Your task to perform on an android device: Open Google Chrome Image 0: 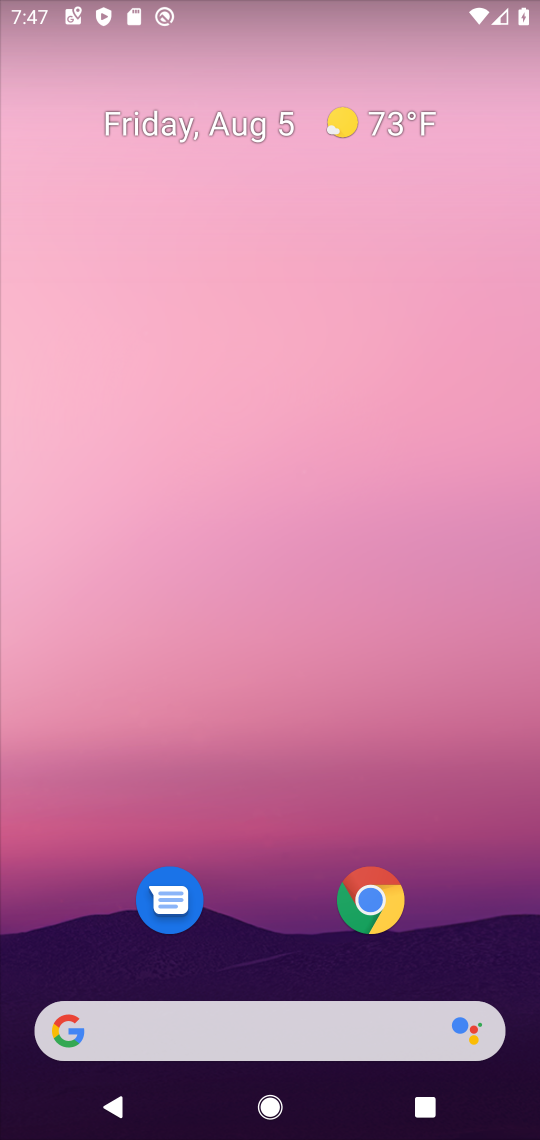
Step 0: click (371, 893)
Your task to perform on an android device: Open Google Chrome Image 1: 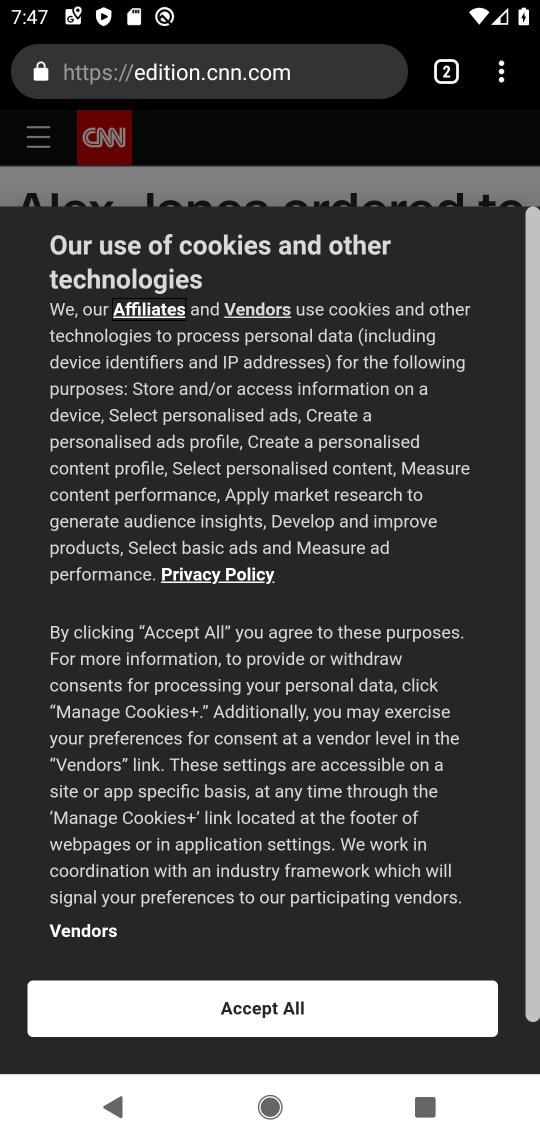
Step 1: task complete